Your task to perform on an android device: Open Wikipedia Image 0: 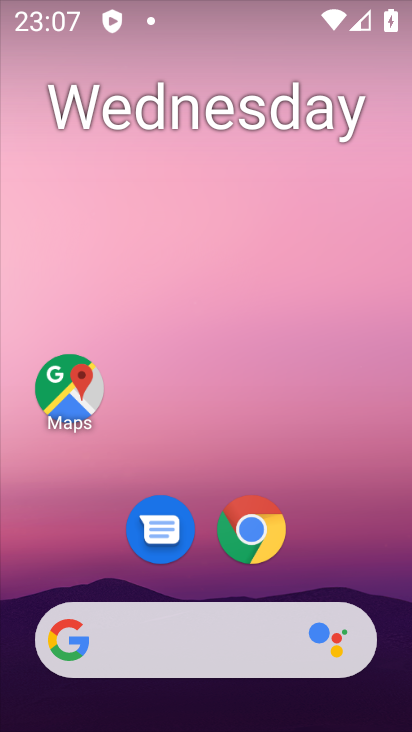
Step 0: drag from (382, 585) to (373, 220)
Your task to perform on an android device: Open Wikipedia Image 1: 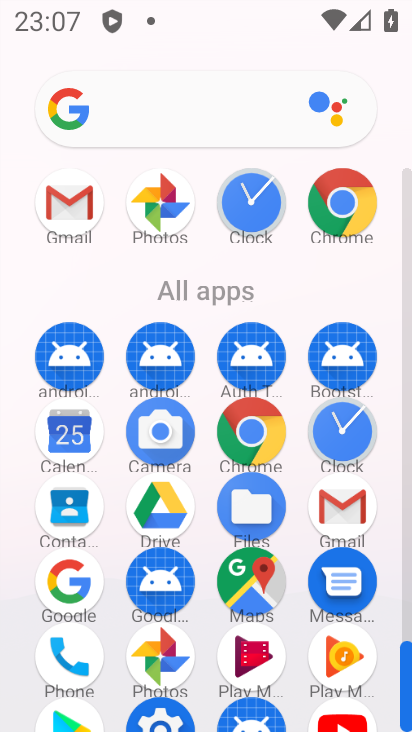
Step 1: click (264, 440)
Your task to perform on an android device: Open Wikipedia Image 2: 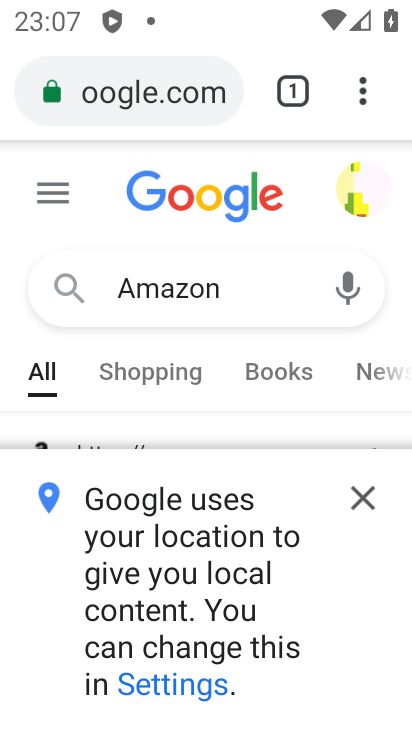
Step 2: click (223, 104)
Your task to perform on an android device: Open Wikipedia Image 3: 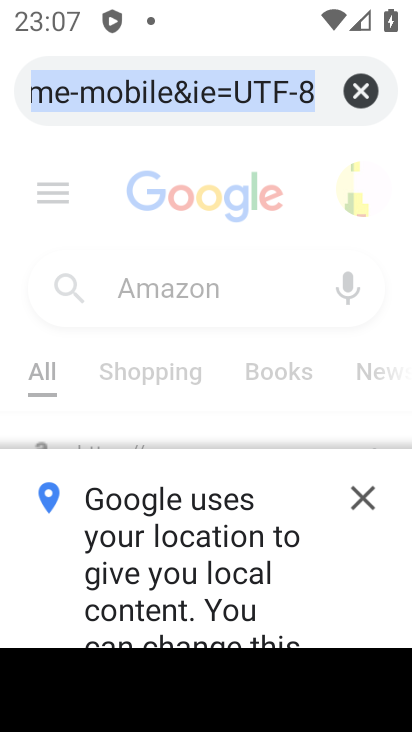
Step 3: click (361, 92)
Your task to perform on an android device: Open Wikipedia Image 4: 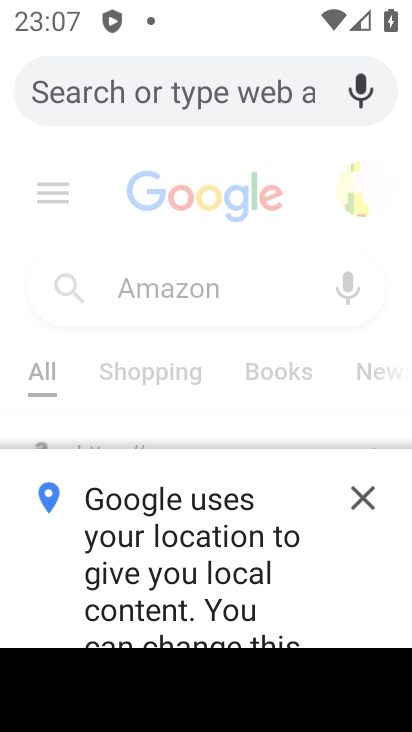
Step 4: type "wikipedia"
Your task to perform on an android device: Open Wikipedia Image 5: 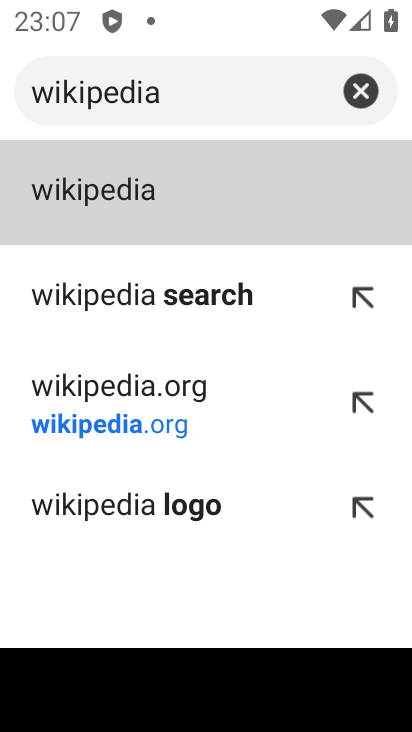
Step 5: click (159, 209)
Your task to perform on an android device: Open Wikipedia Image 6: 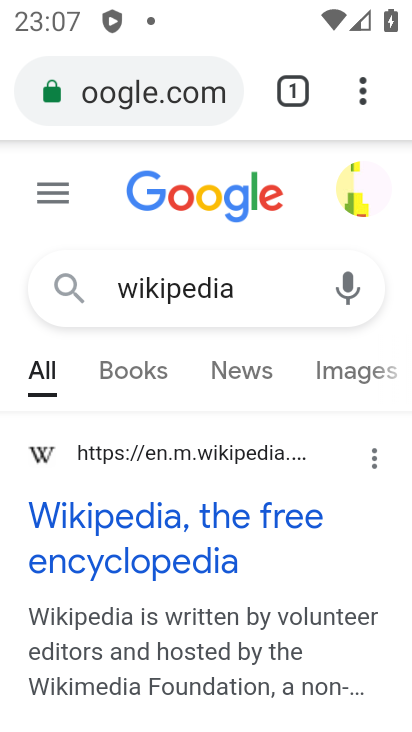
Step 6: task complete